Your task to perform on an android device: turn pop-ups on in chrome Image 0: 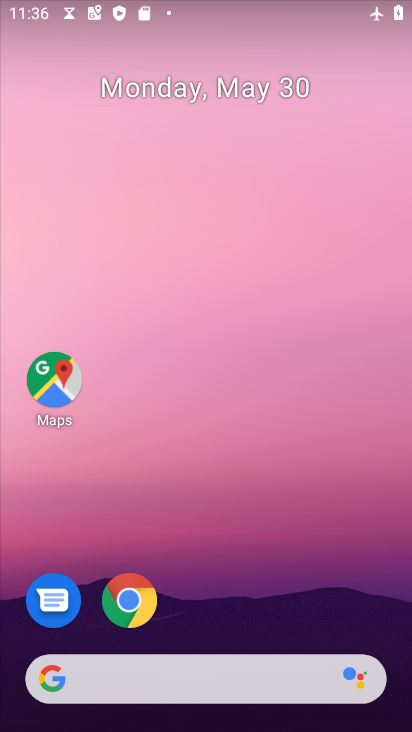
Step 0: click (131, 611)
Your task to perform on an android device: turn pop-ups on in chrome Image 1: 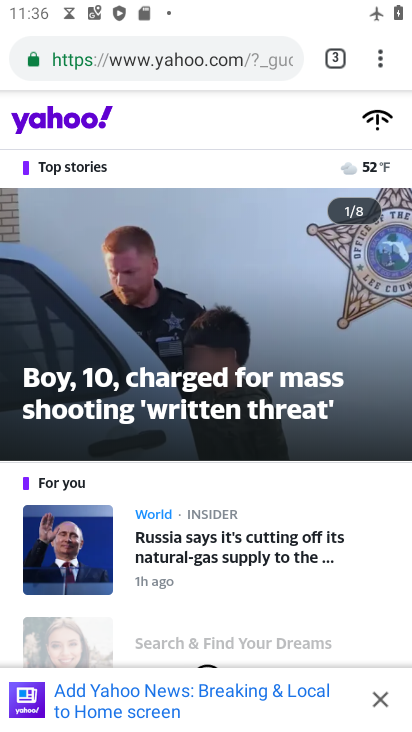
Step 1: click (378, 64)
Your task to perform on an android device: turn pop-ups on in chrome Image 2: 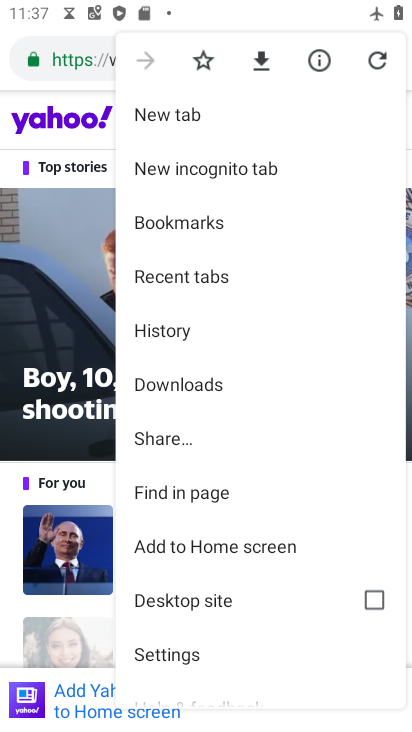
Step 2: click (163, 648)
Your task to perform on an android device: turn pop-ups on in chrome Image 3: 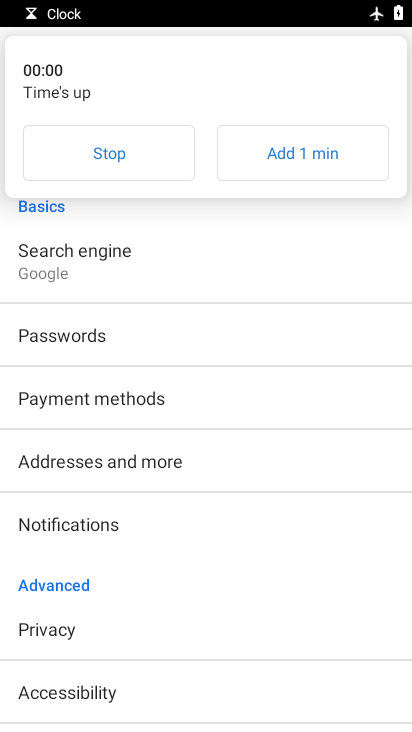
Step 3: drag from (161, 703) to (168, 290)
Your task to perform on an android device: turn pop-ups on in chrome Image 4: 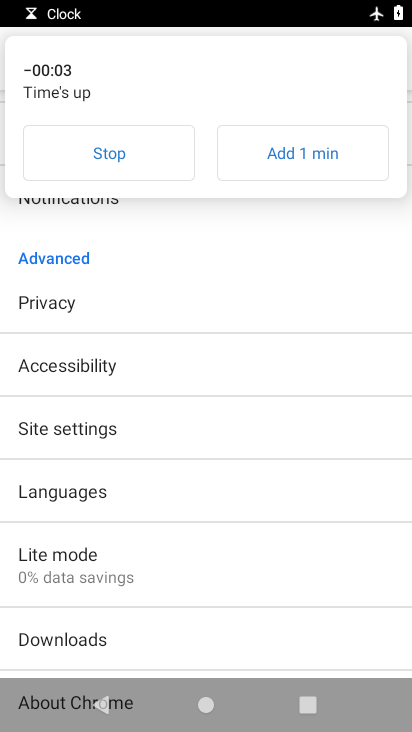
Step 4: click (84, 428)
Your task to perform on an android device: turn pop-ups on in chrome Image 5: 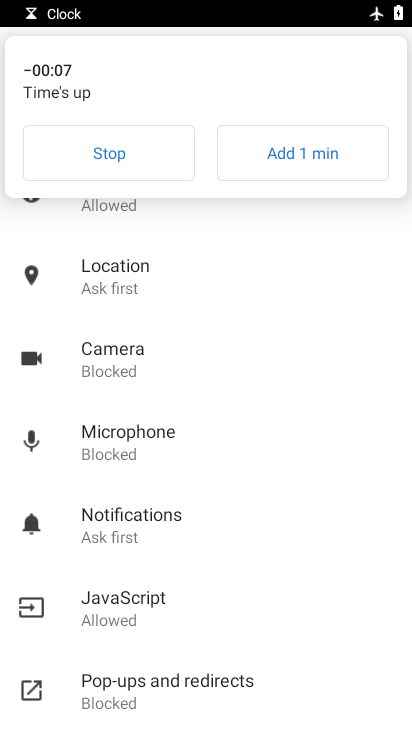
Step 5: click (149, 674)
Your task to perform on an android device: turn pop-ups on in chrome Image 6: 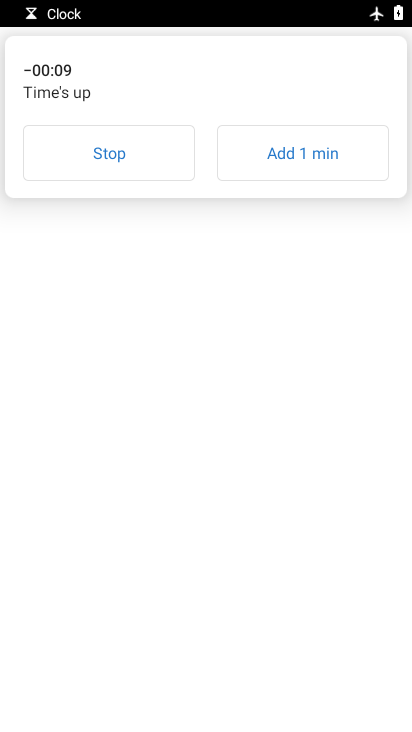
Step 6: click (104, 156)
Your task to perform on an android device: turn pop-ups on in chrome Image 7: 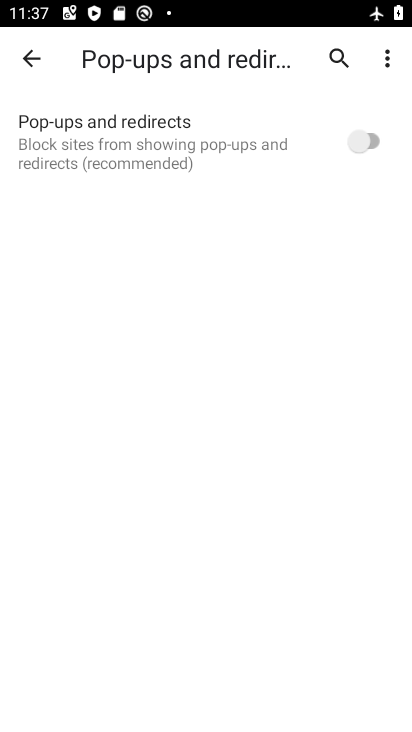
Step 7: click (372, 137)
Your task to perform on an android device: turn pop-ups on in chrome Image 8: 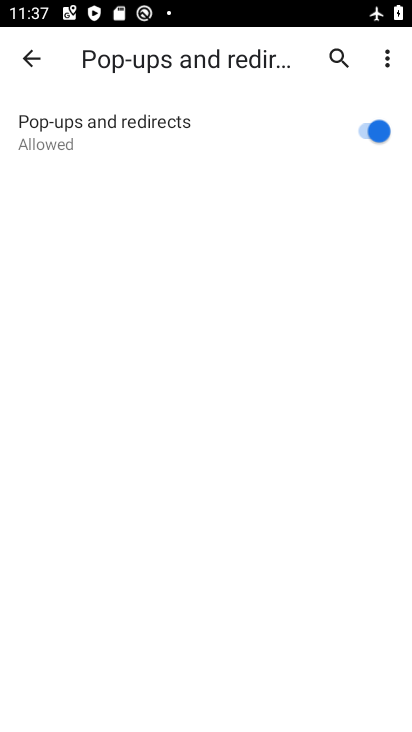
Step 8: task complete